Your task to perform on an android device: Go to wifi settings Image 0: 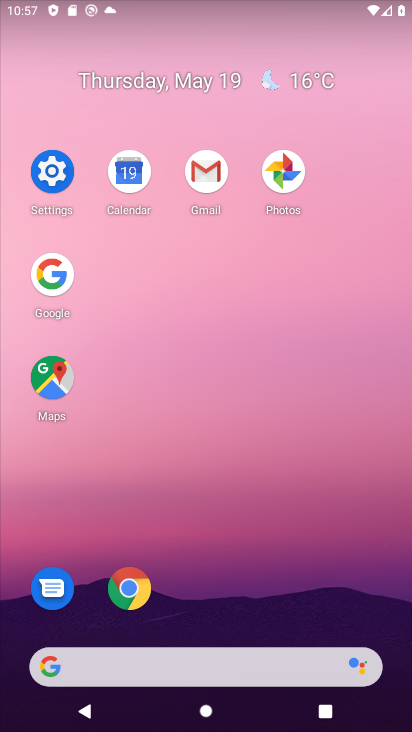
Step 0: click (43, 166)
Your task to perform on an android device: Go to wifi settings Image 1: 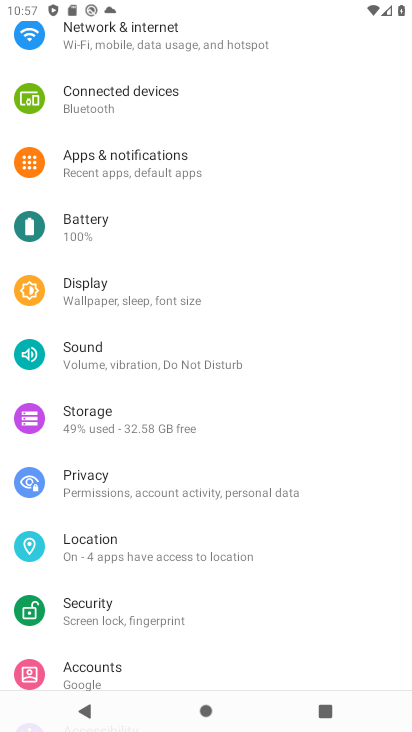
Step 1: click (145, 48)
Your task to perform on an android device: Go to wifi settings Image 2: 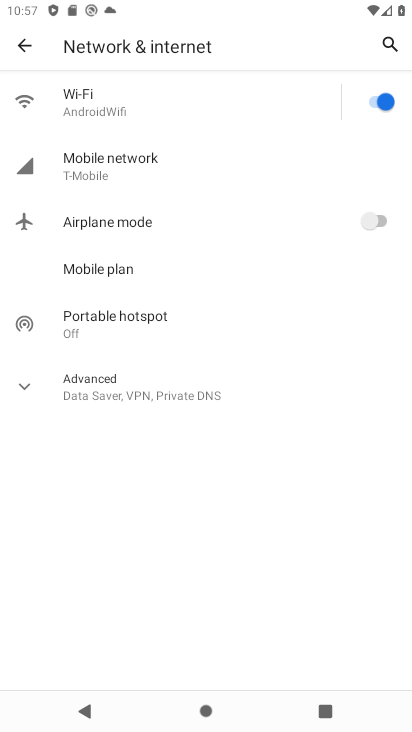
Step 2: click (169, 79)
Your task to perform on an android device: Go to wifi settings Image 3: 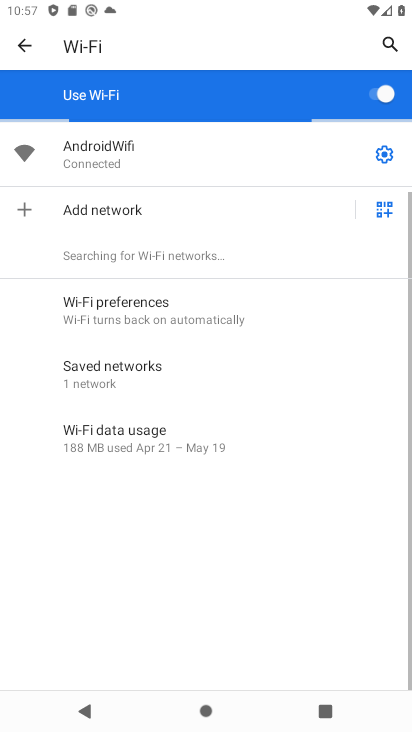
Step 3: click (390, 146)
Your task to perform on an android device: Go to wifi settings Image 4: 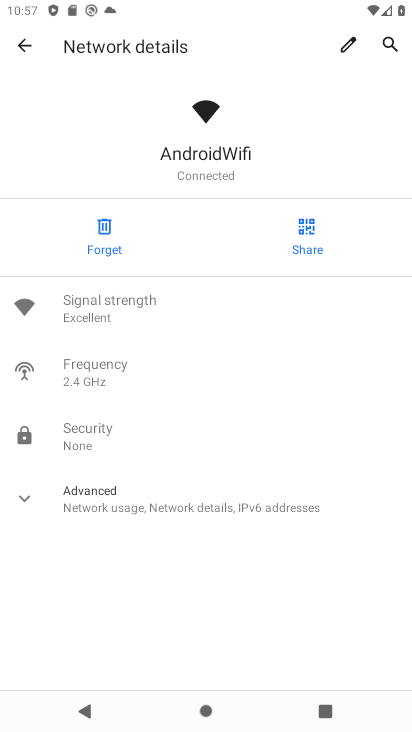
Step 4: task complete